Your task to perform on an android device: Open calendar and show me the third week of next month Image 0: 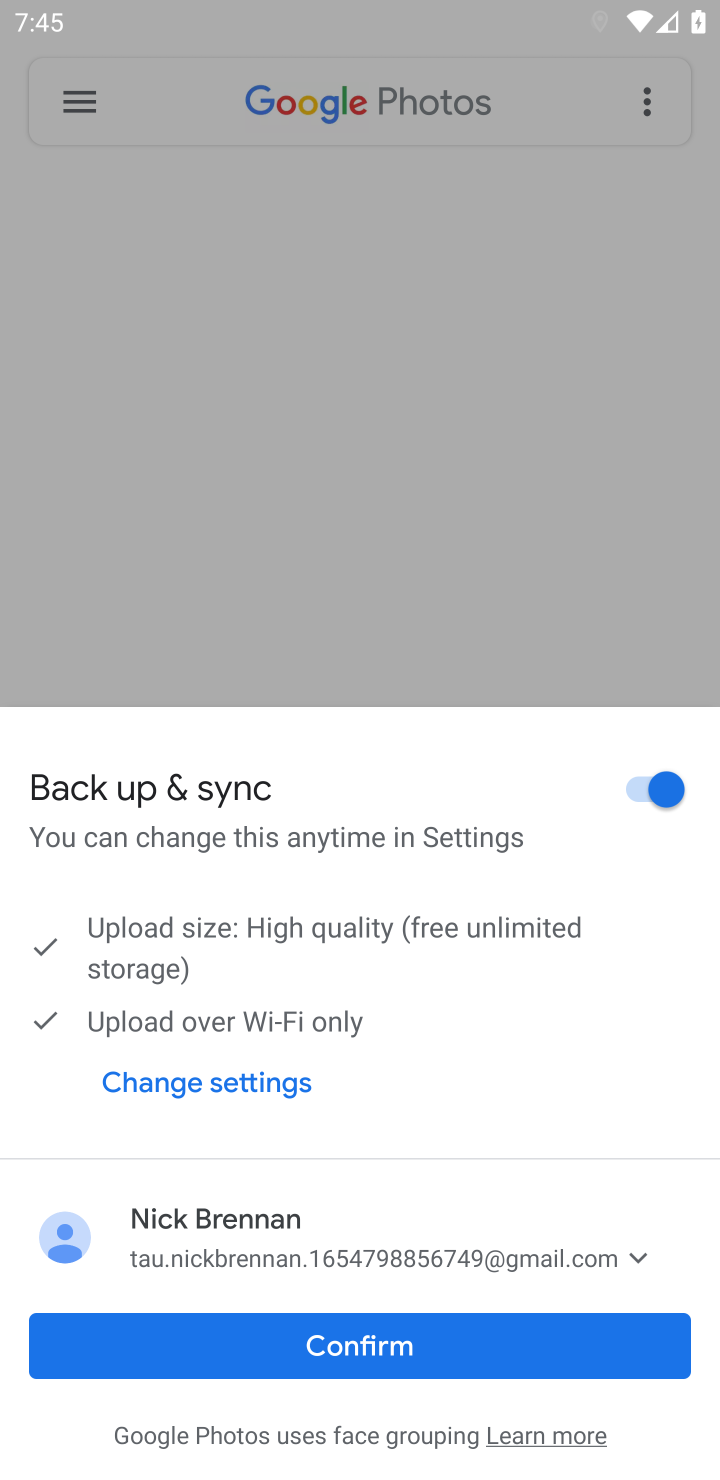
Step 0: press home button
Your task to perform on an android device: Open calendar and show me the third week of next month Image 1: 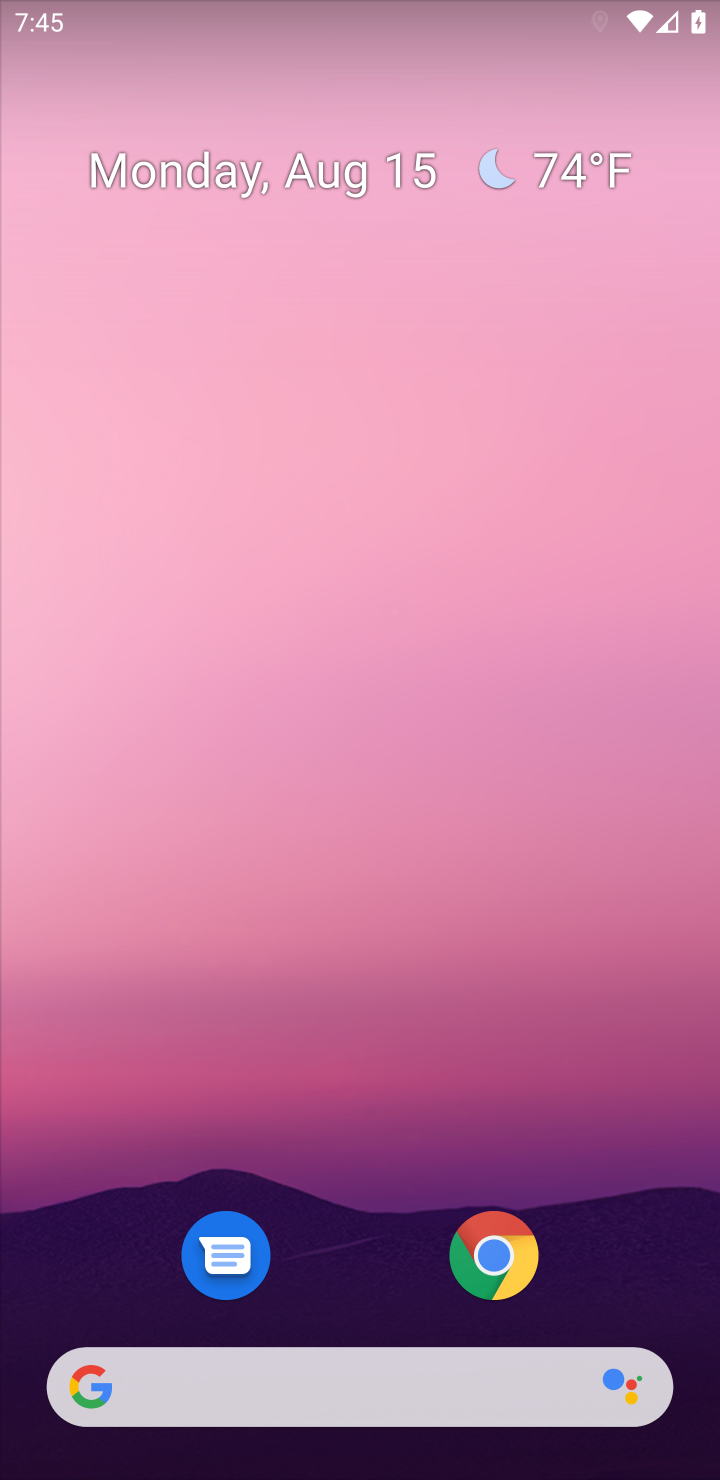
Step 1: drag from (316, 1175) to (266, 70)
Your task to perform on an android device: Open calendar and show me the third week of next month Image 2: 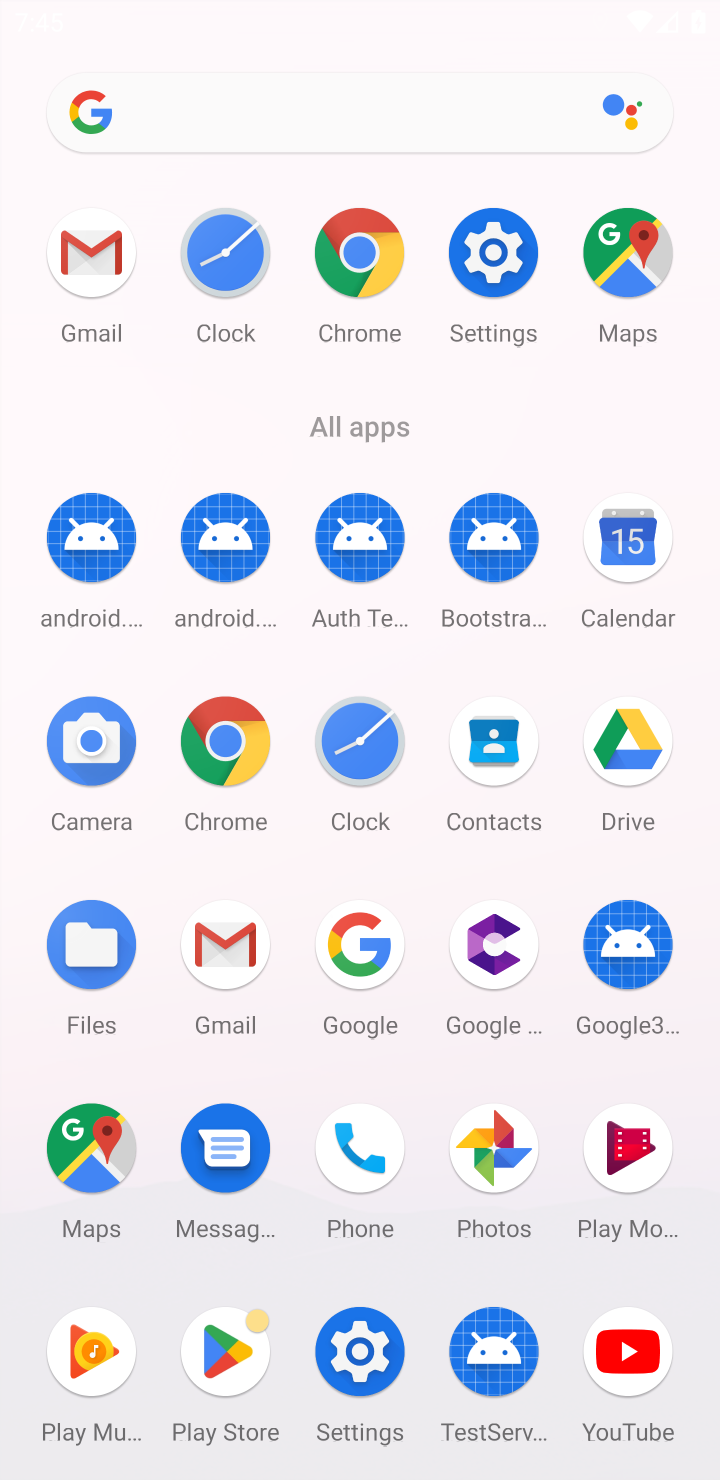
Step 2: click (631, 540)
Your task to perform on an android device: Open calendar and show me the third week of next month Image 3: 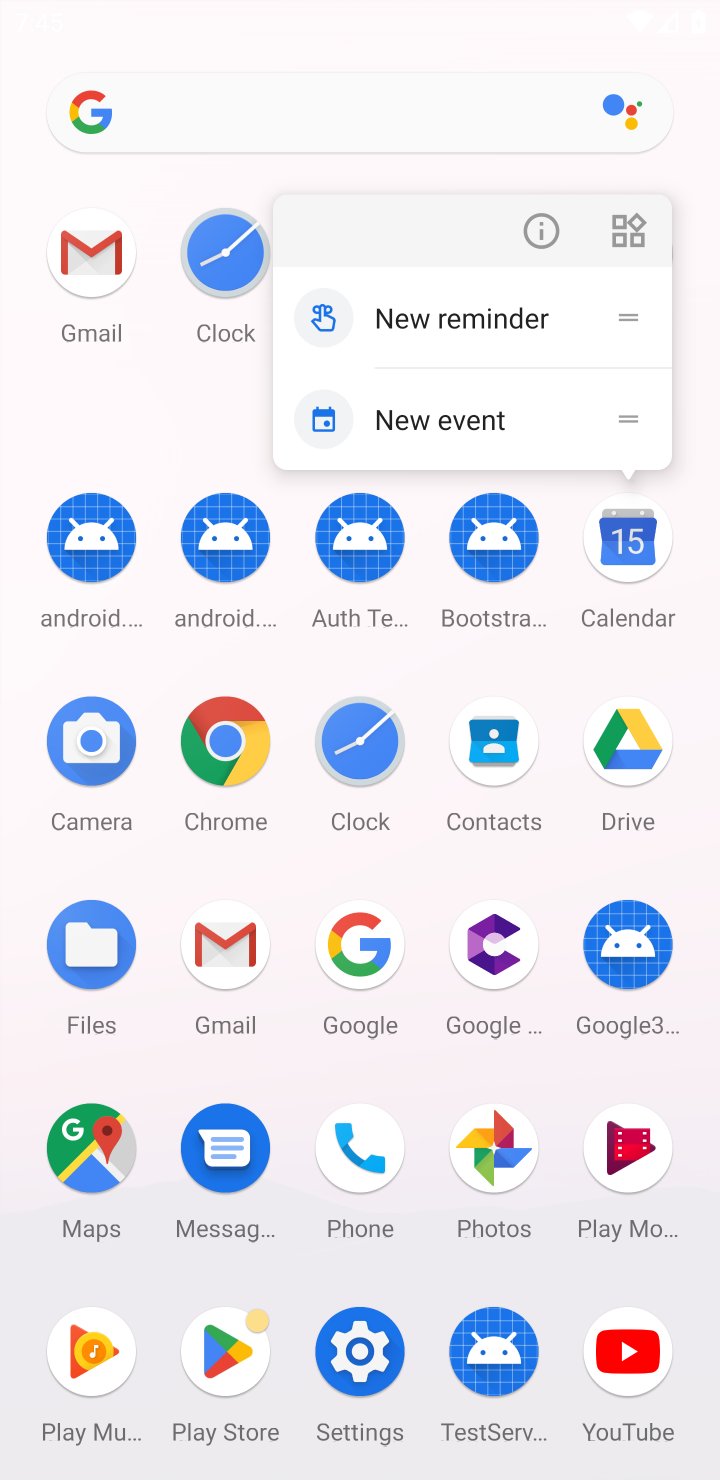
Step 3: click (604, 533)
Your task to perform on an android device: Open calendar and show me the third week of next month Image 4: 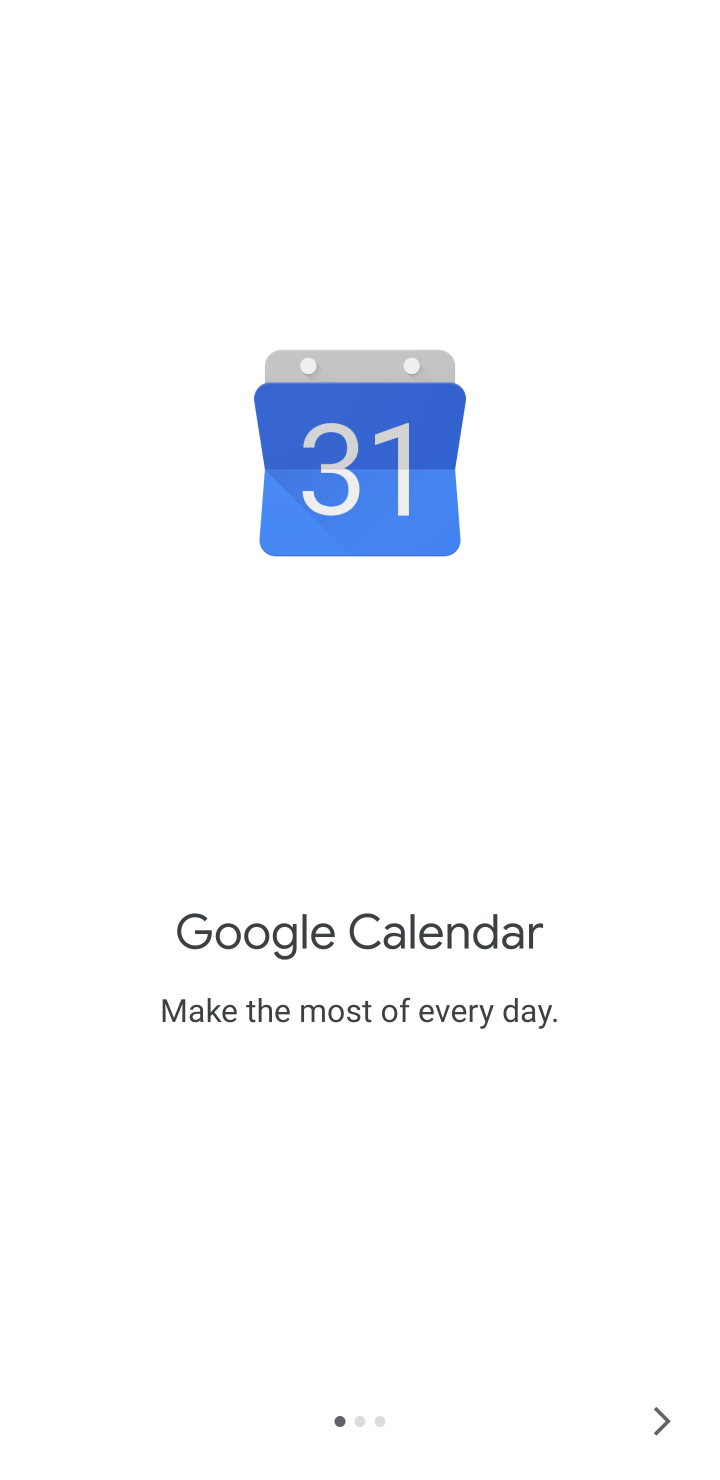
Step 4: click (675, 1415)
Your task to perform on an android device: Open calendar and show me the third week of next month Image 5: 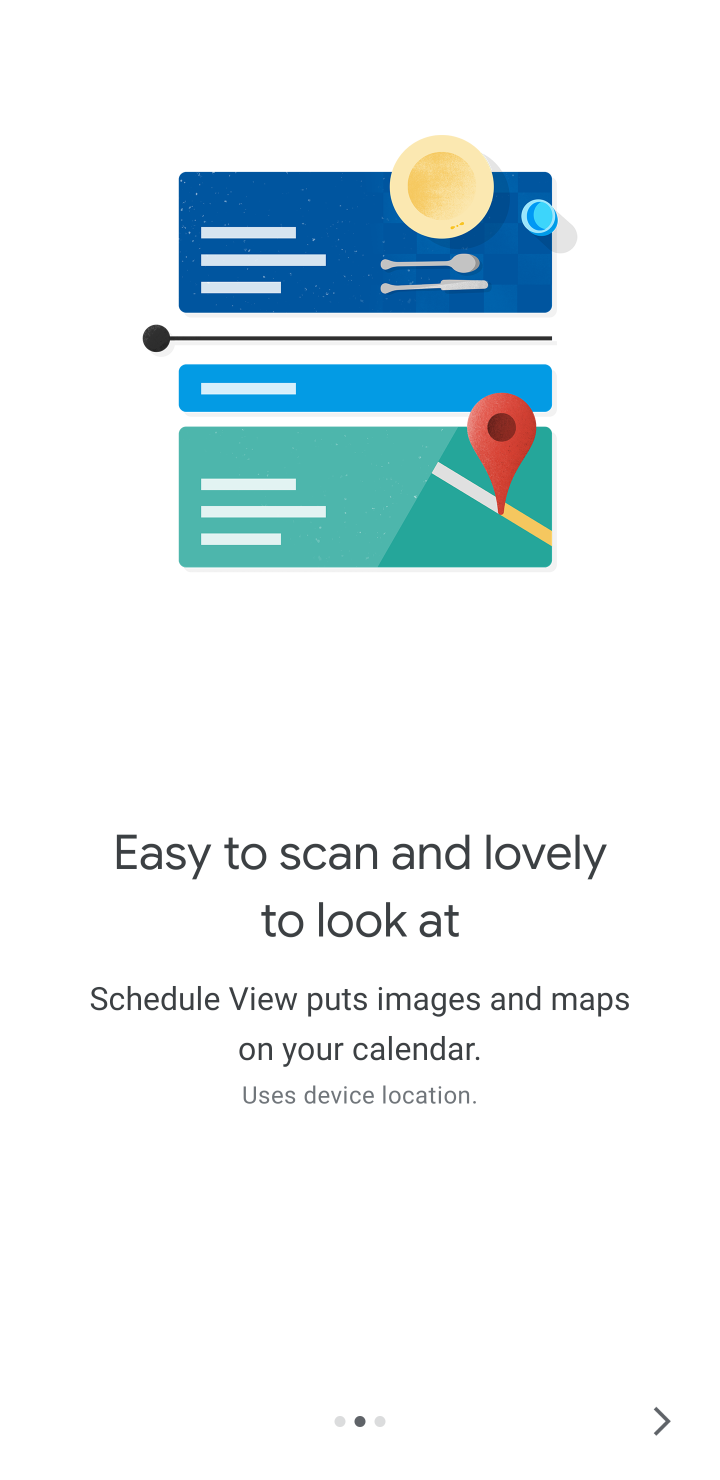
Step 5: click (675, 1415)
Your task to perform on an android device: Open calendar and show me the third week of next month Image 6: 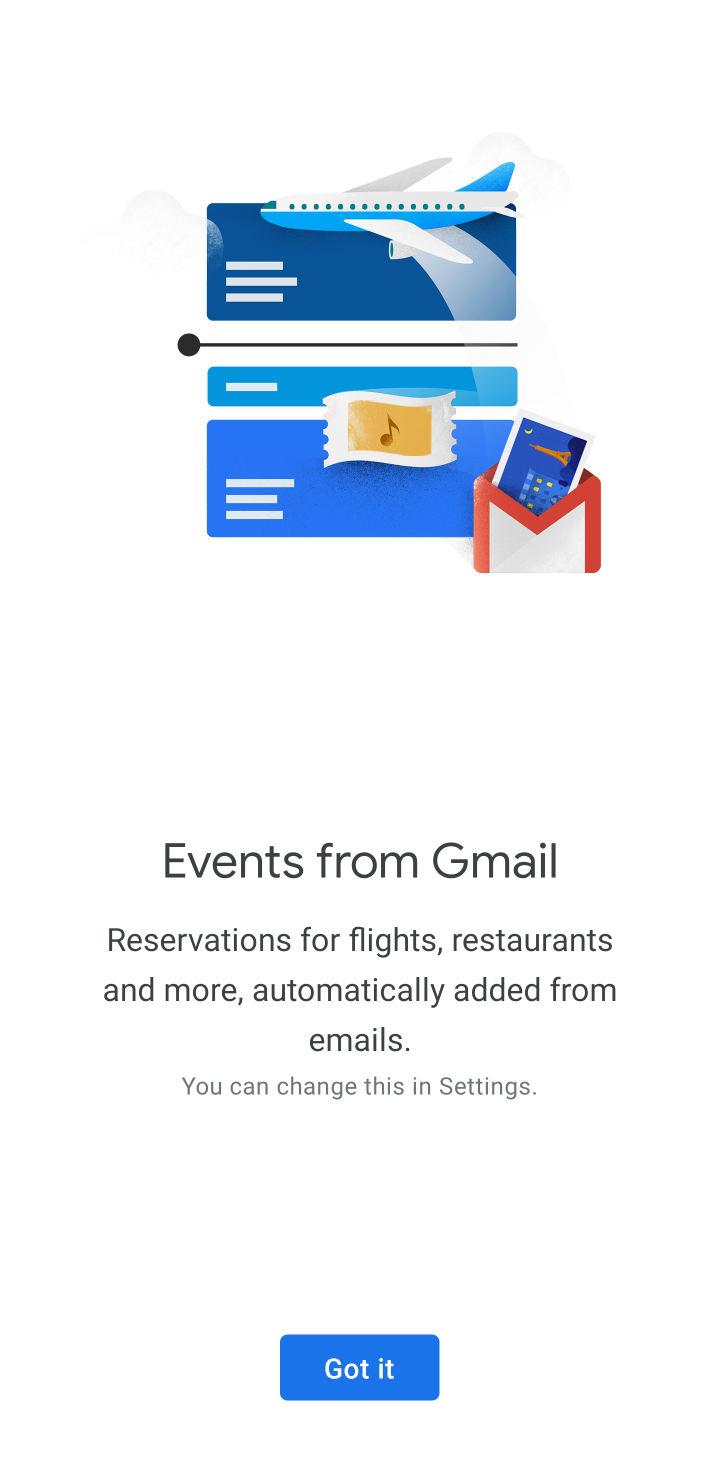
Step 6: click (675, 1415)
Your task to perform on an android device: Open calendar and show me the third week of next month Image 7: 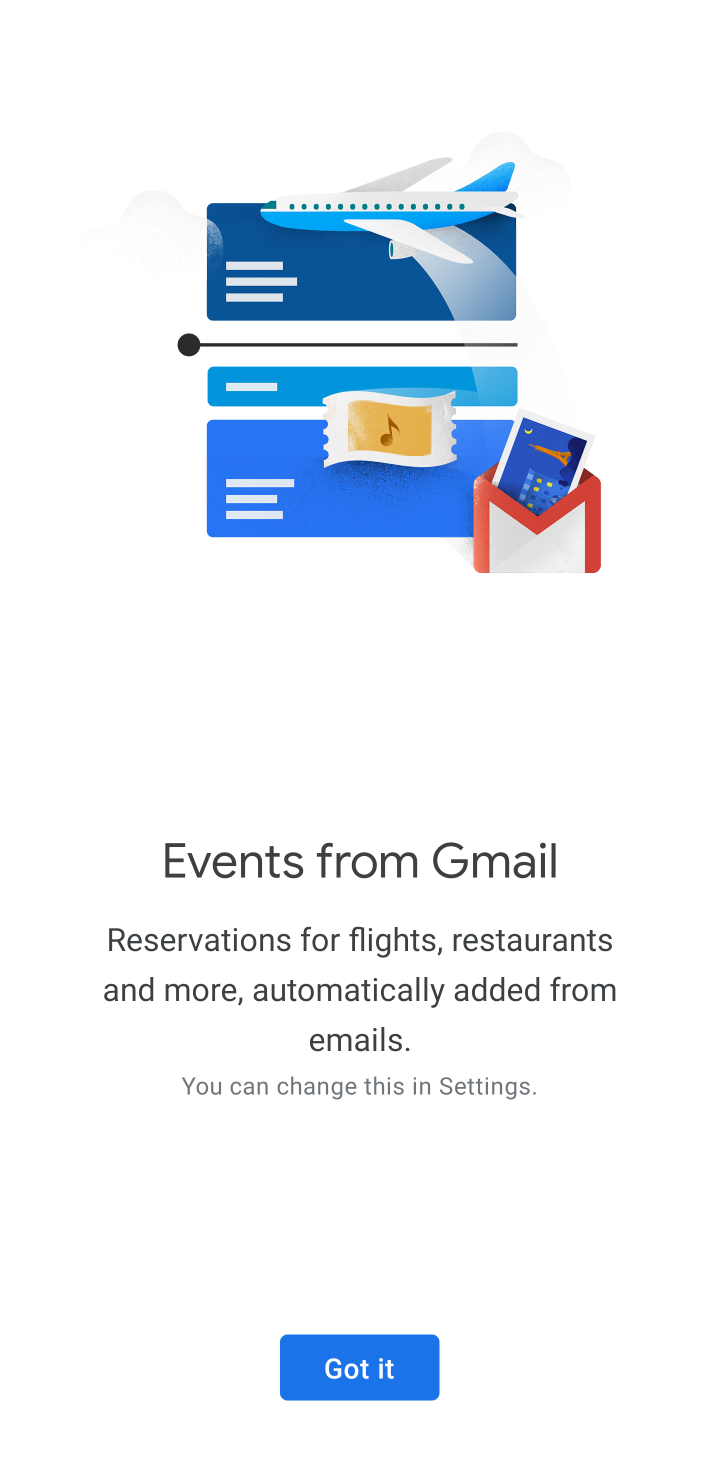
Step 7: click (365, 1371)
Your task to perform on an android device: Open calendar and show me the third week of next month Image 8: 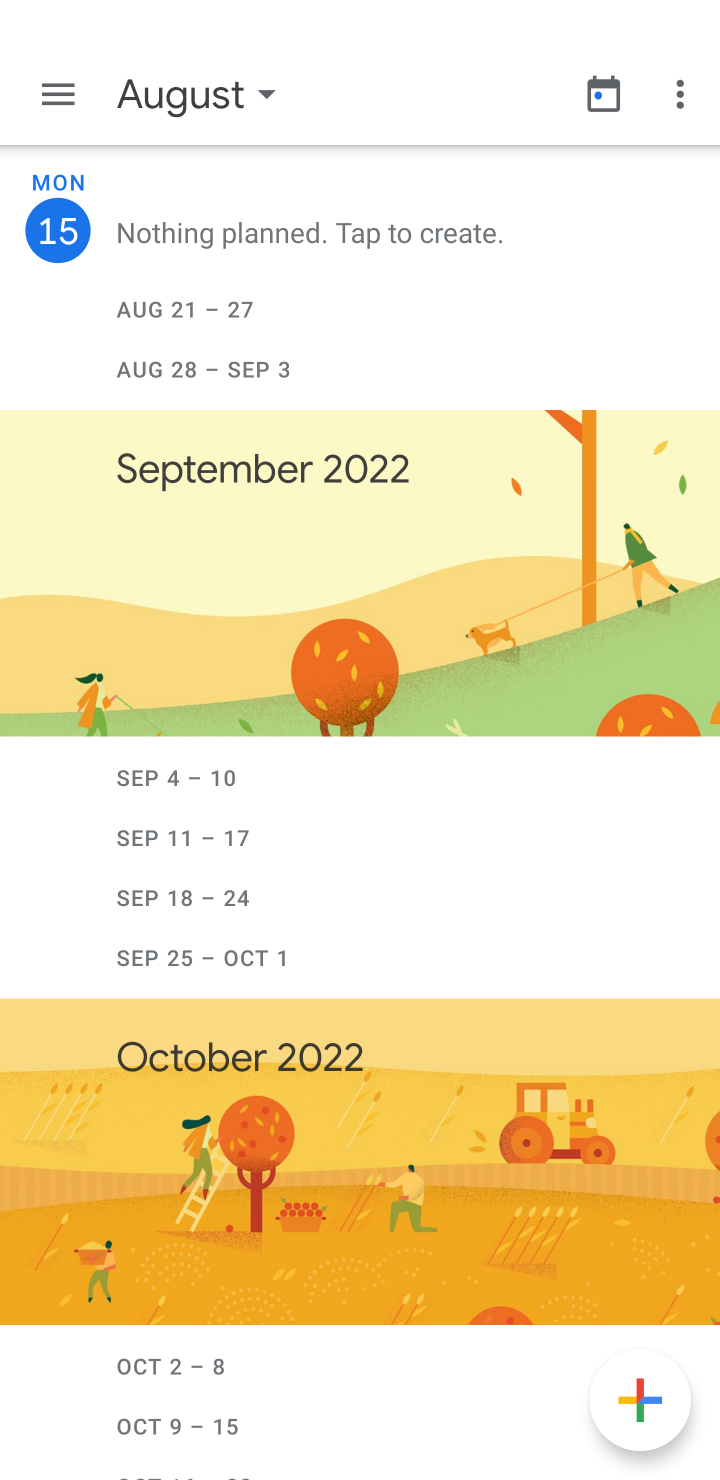
Step 8: click (52, 82)
Your task to perform on an android device: Open calendar and show me the third week of next month Image 9: 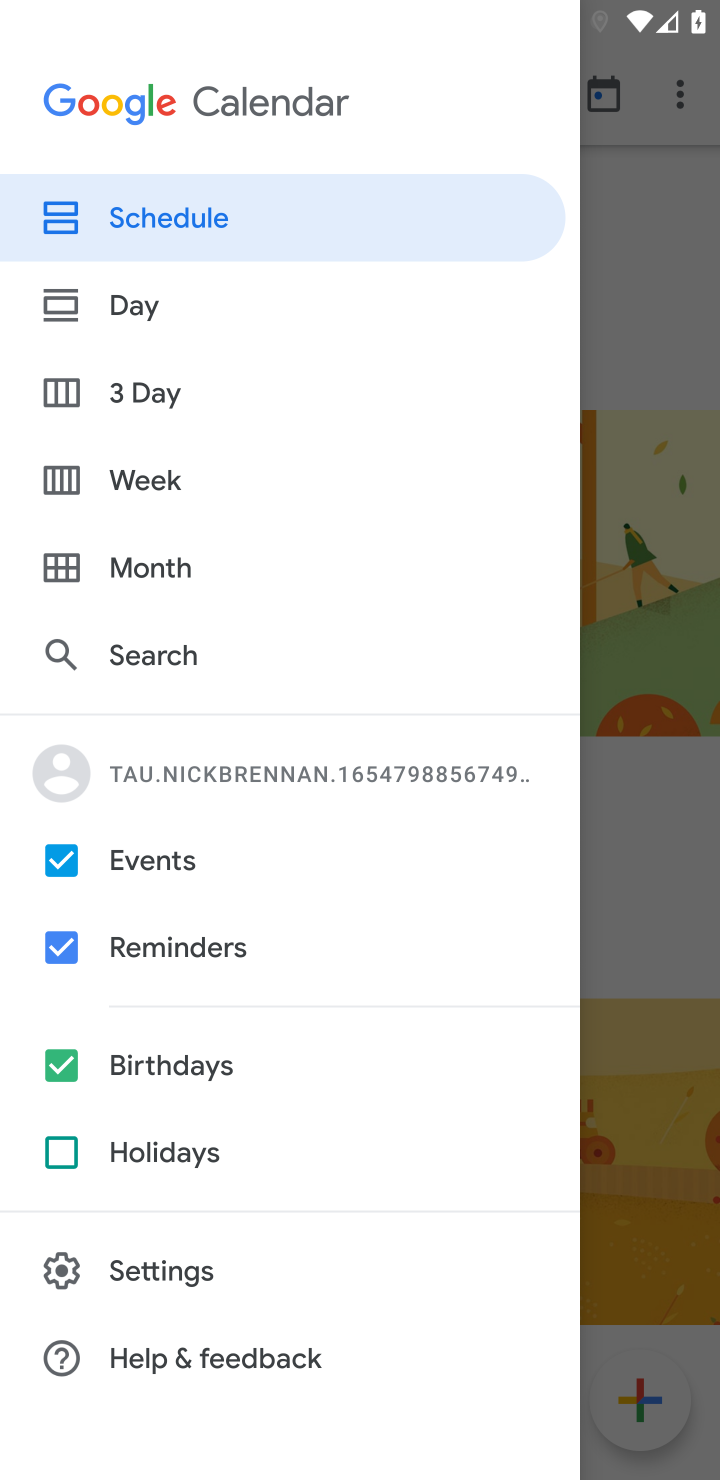
Step 9: click (60, 1064)
Your task to perform on an android device: Open calendar and show me the third week of next month Image 10: 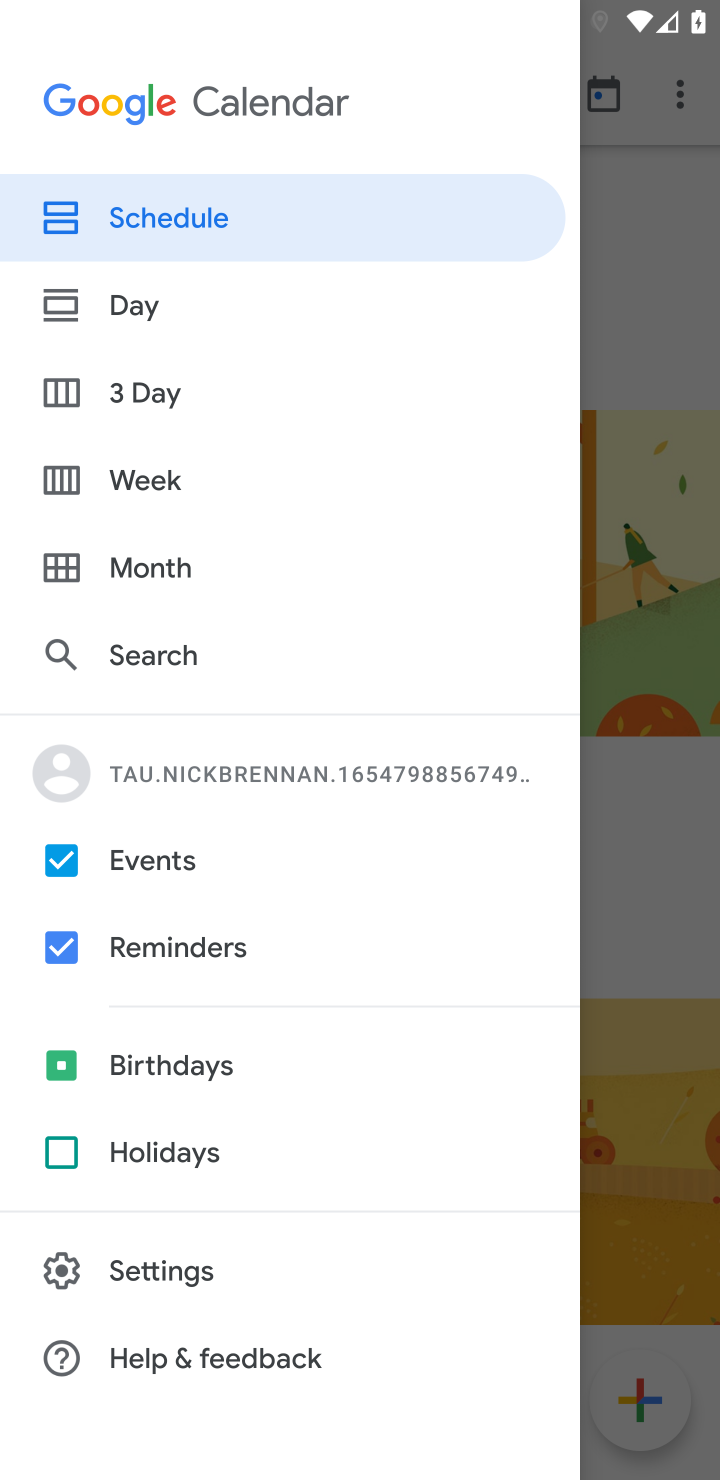
Step 10: click (54, 953)
Your task to perform on an android device: Open calendar and show me the third week of next month Image 11: 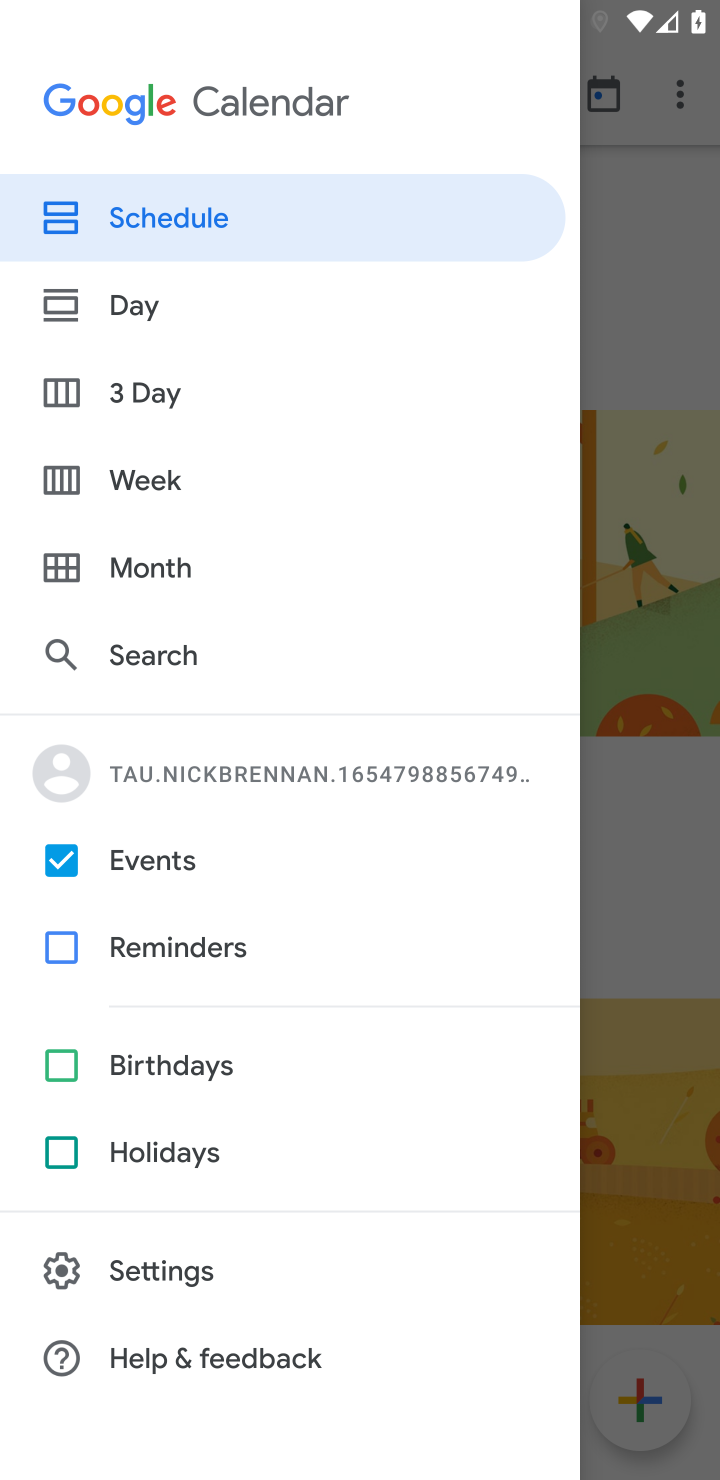
Step 11: click (90, 471)
Your task to perform on an android device: Open calendar and show me the third week of next month Image 12: 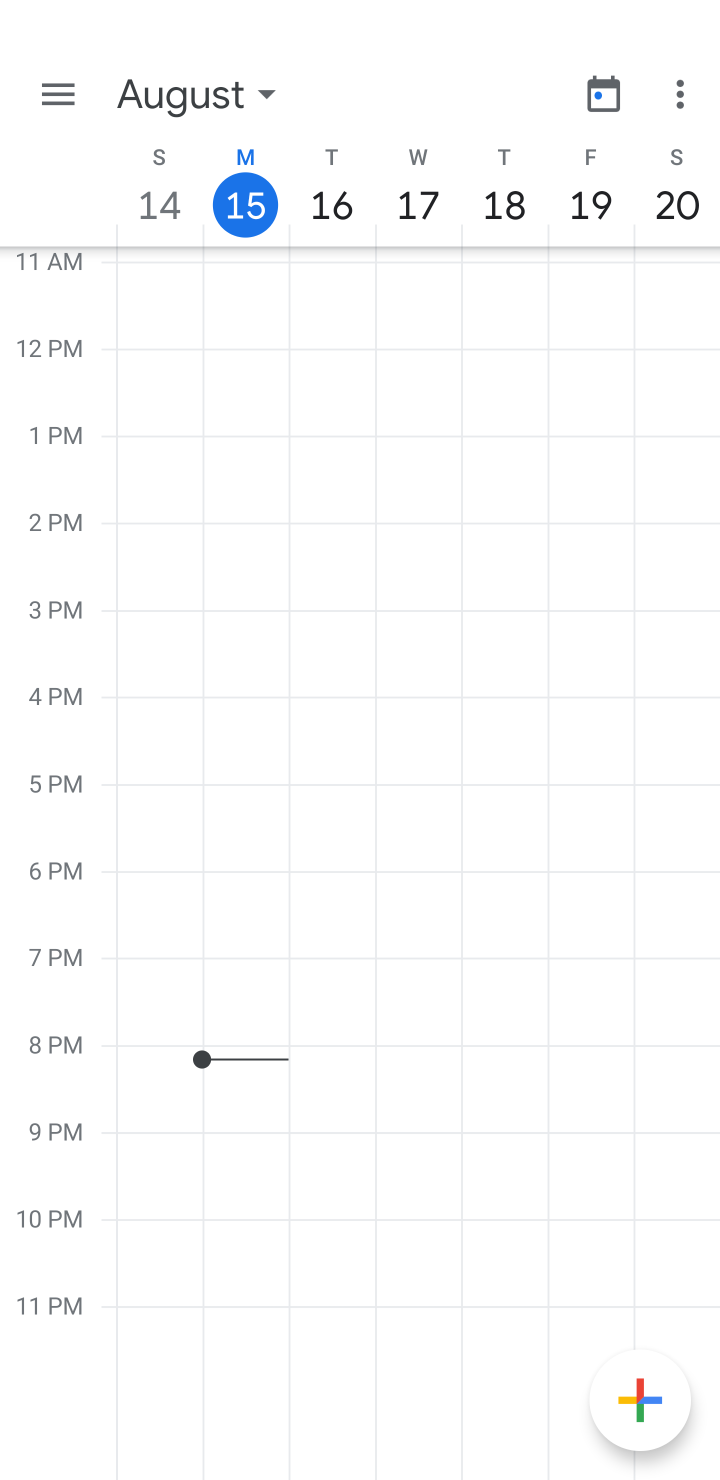
Step 12: drag from (662, 207) to (0, 261)
Your task to perform on an android device: Open calendar and show me the third week of next month Image 13: 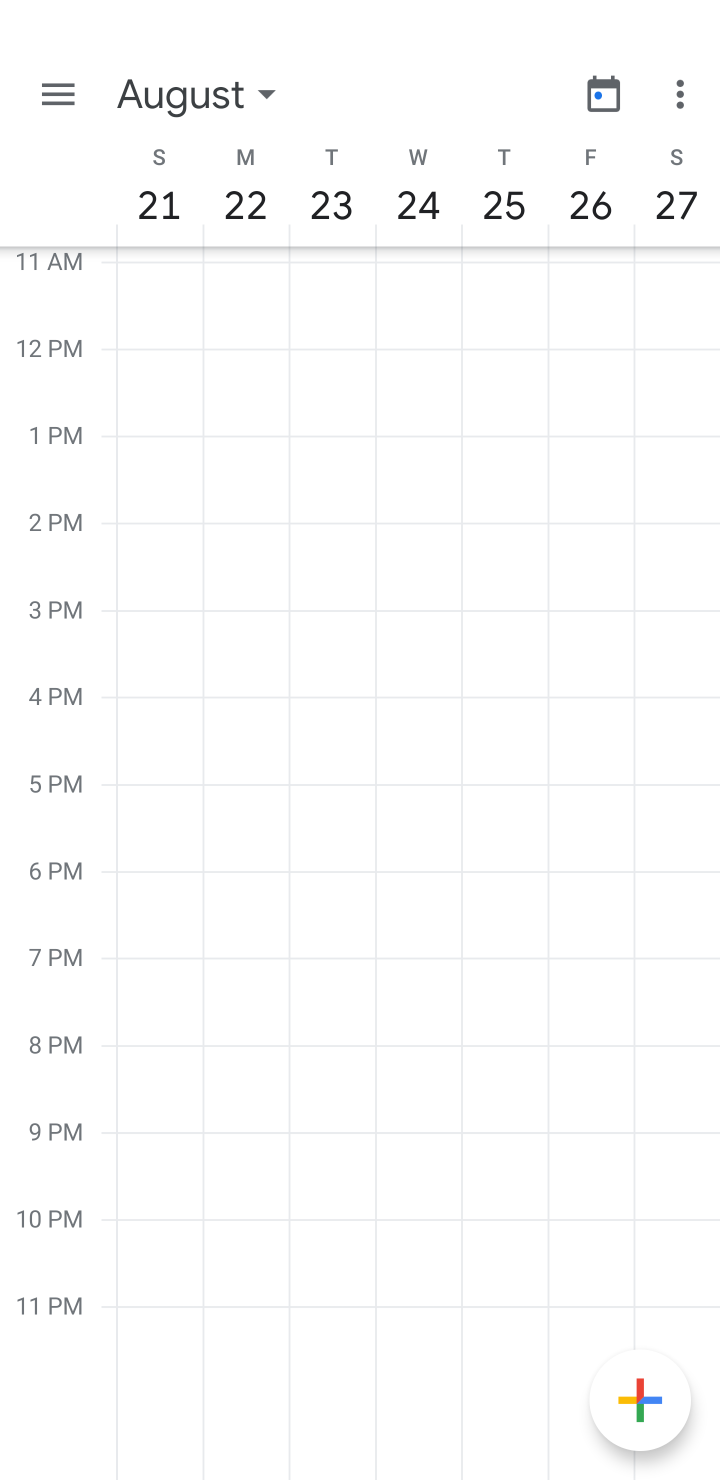
Step 13: drag from (669, 202) to (70, 224)
Your task to perform on an android device: Open calendar and show me the third week of next month Image 14: 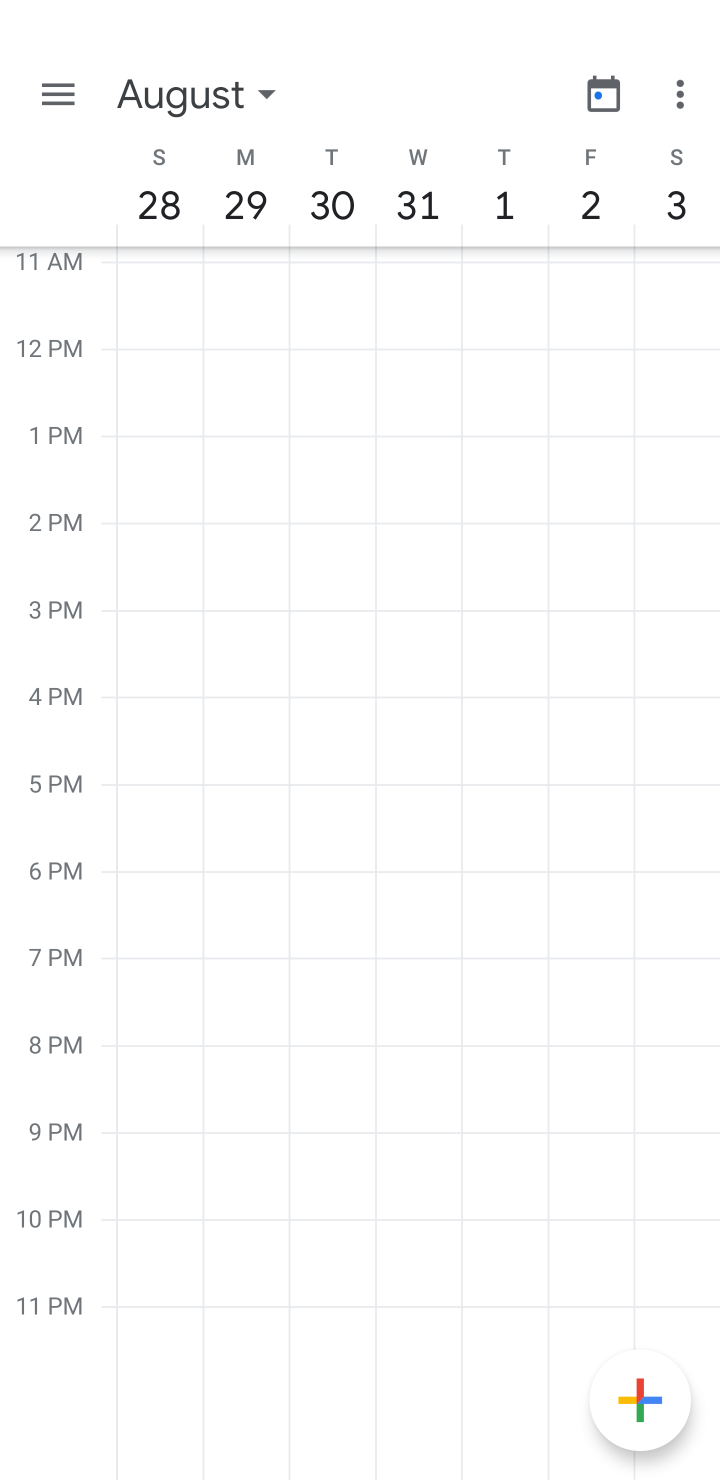
Step 14: drag from (661, 199) to (107, 201)
Your task to perform on an android device: Open calendar and show me the third week of next month Image 15: 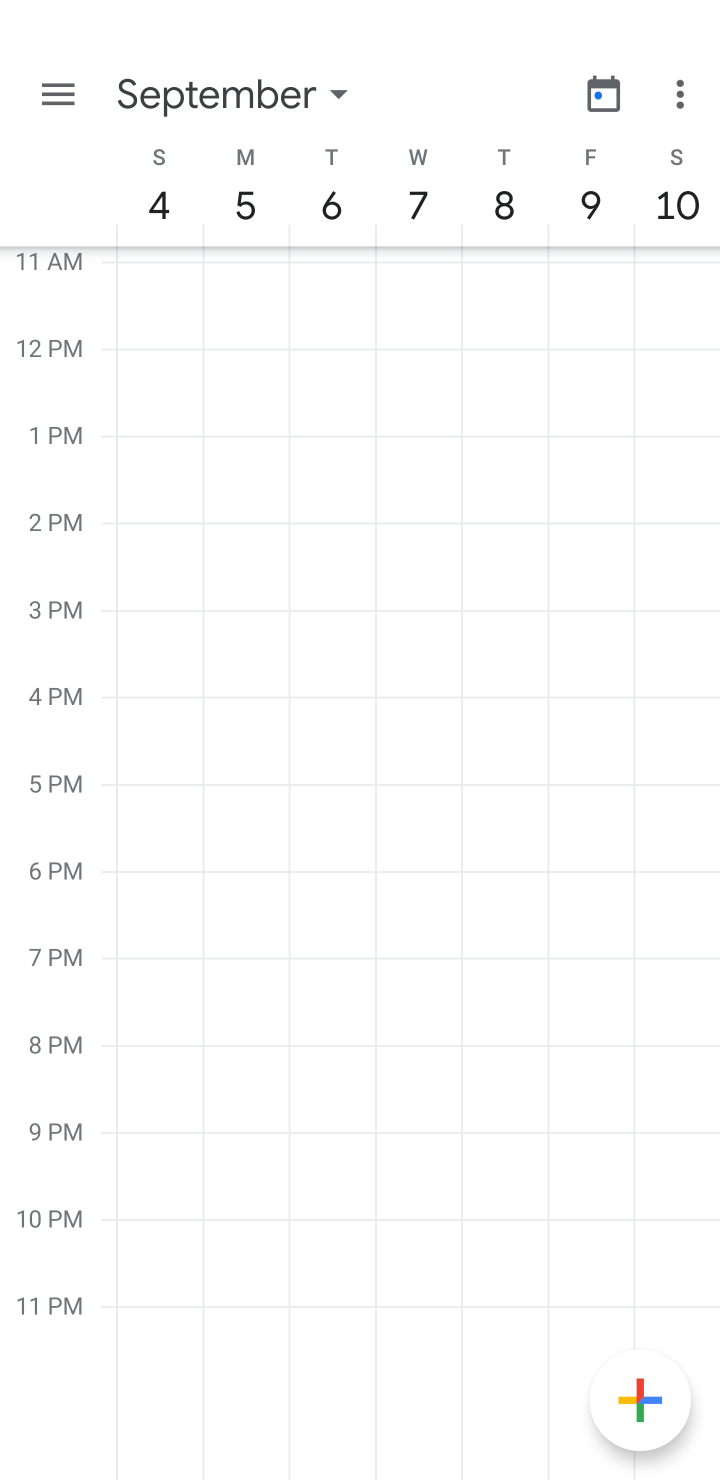
Step 15: drag from (667, 195) to (109, 210)
Your task to perform on an android device: Open calendar and show me the third week of next month Image 16: 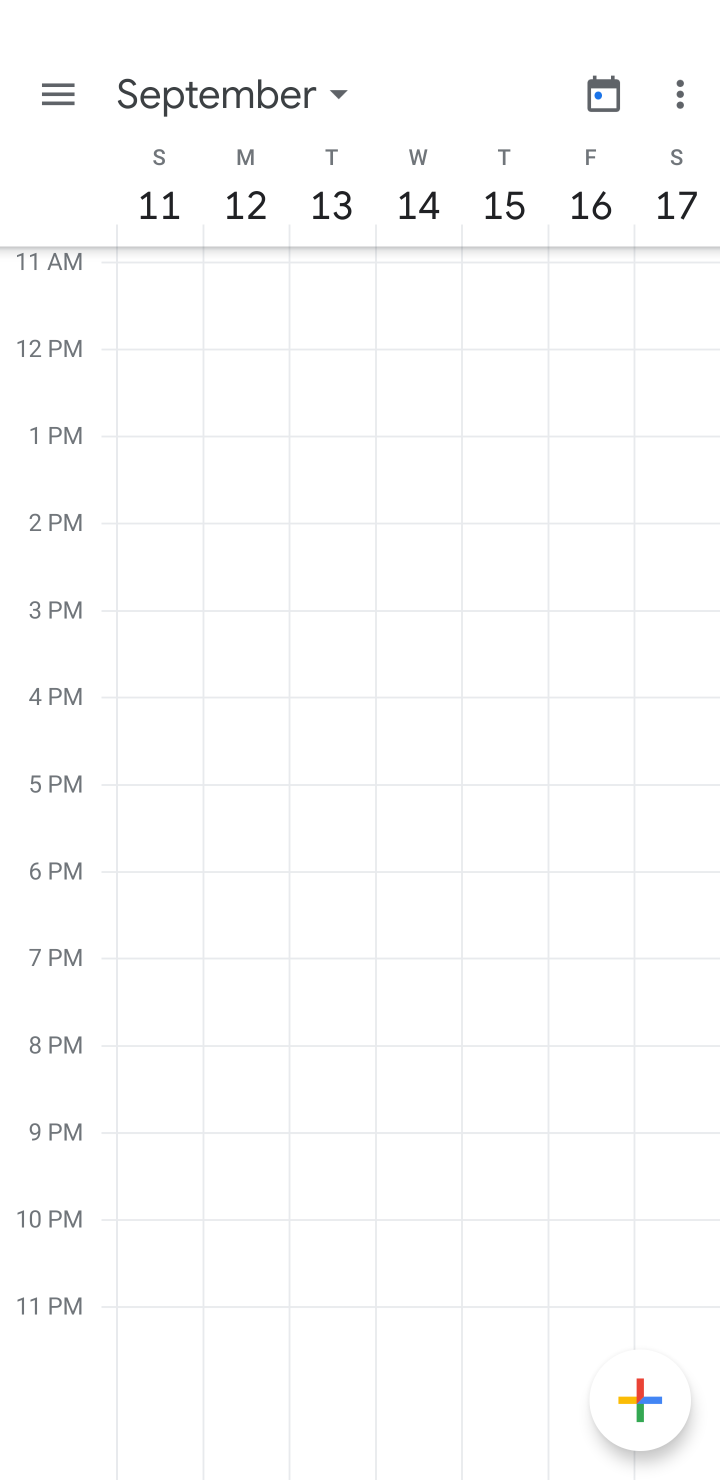
Step 16: drag from (674, 199) to (112, 206)
Your task to perform on an android device: Open calendar and show me the third week of next month Image 17: 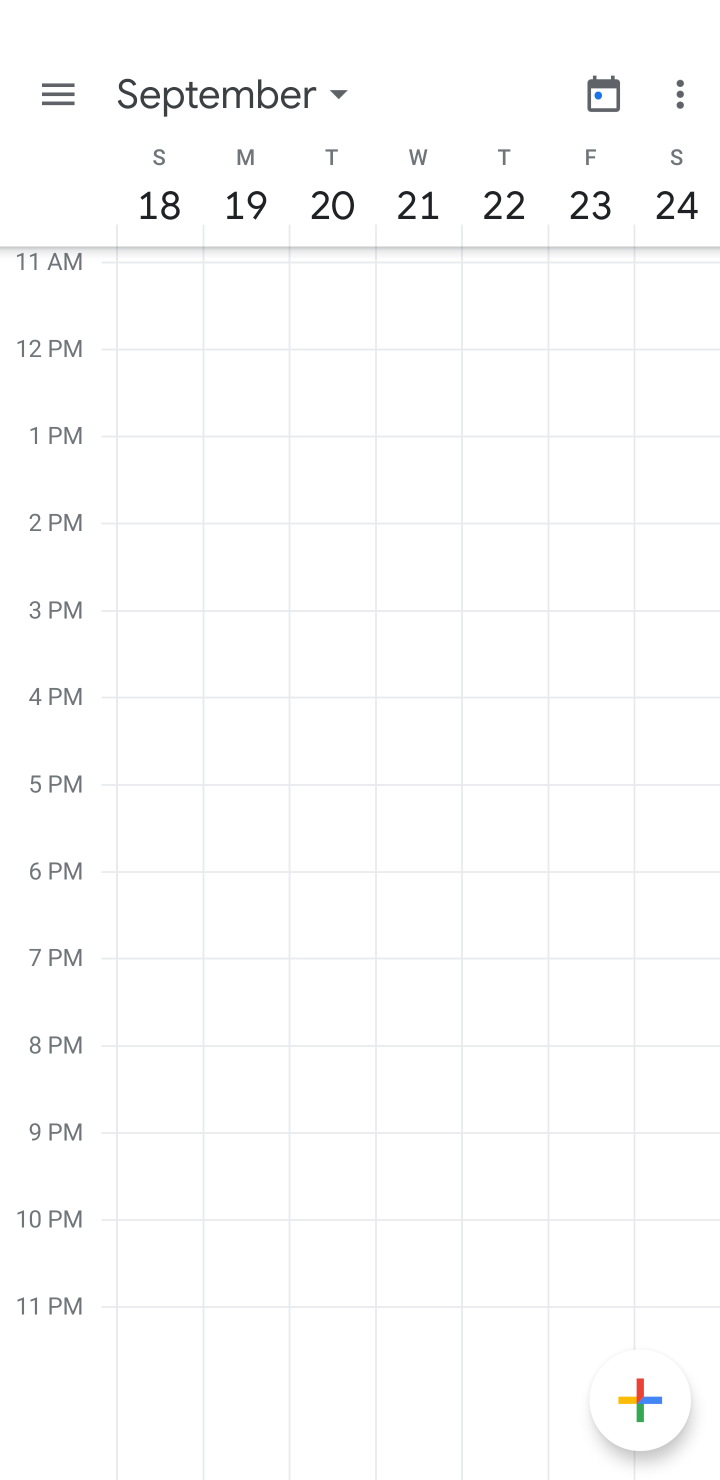
Step 17: click (149, 200)
Your task to perform on an android device: Open calendar and show me the third week of next month Image 18: 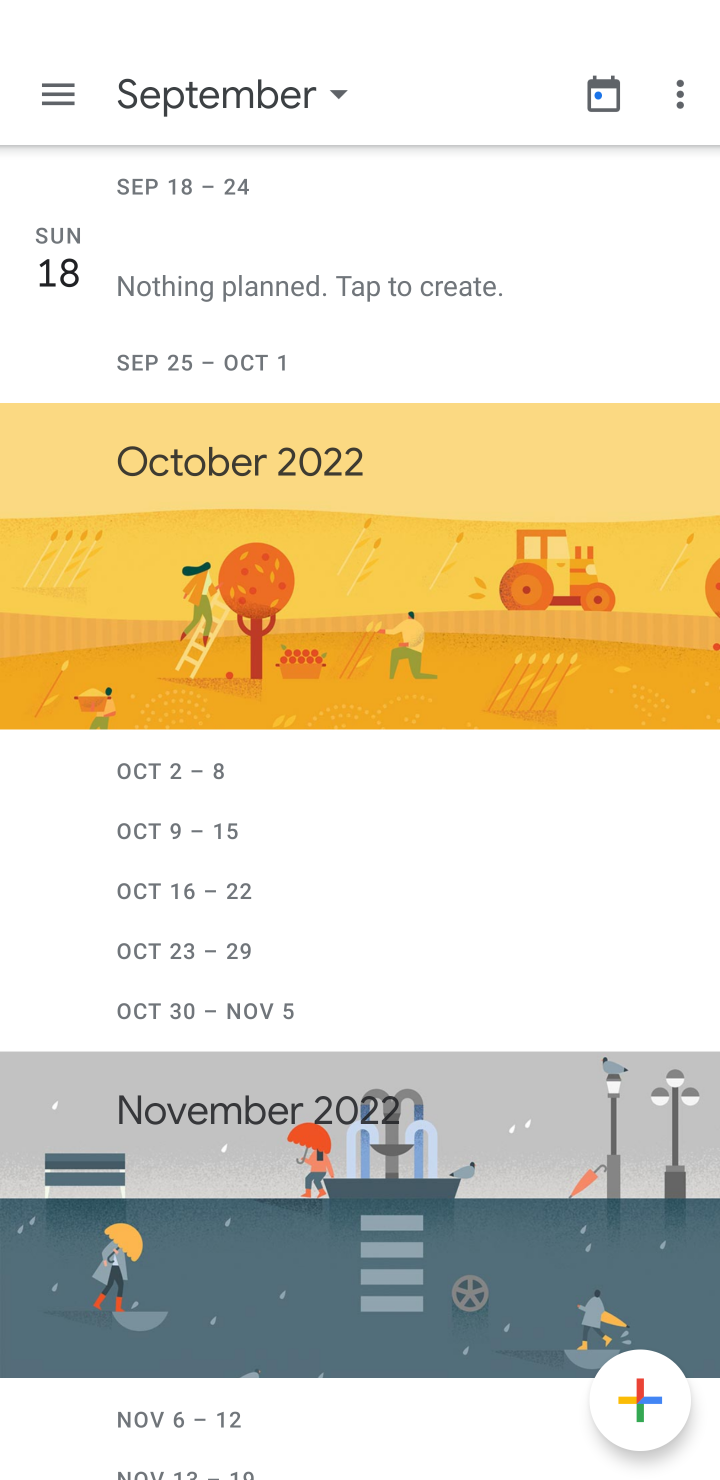
Step 18: click (65, 198)
Your task to perform on an android device: Open calendar and show me the third week of next month Image 19: 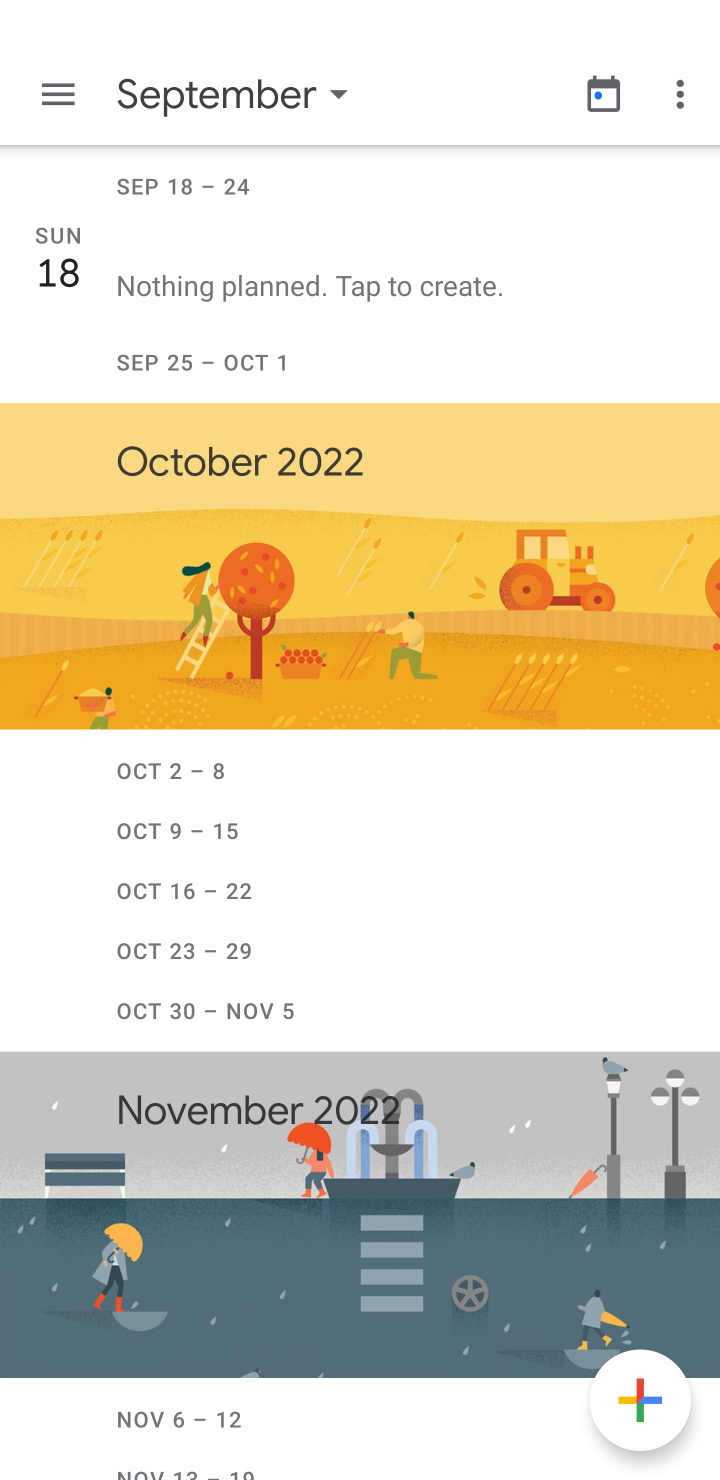
Step 19: task complete